Your task to perform on an android device: Open Chrome and go to settings Image 0: 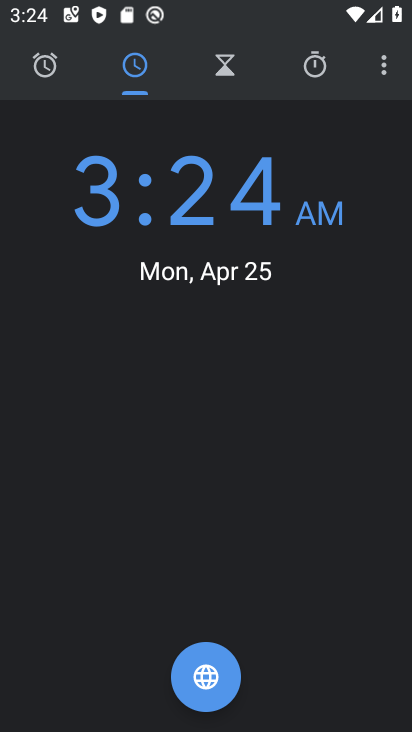
Step 0: press home button
Your task to perform on an android device: Open Chrome and go to settings Image 1: 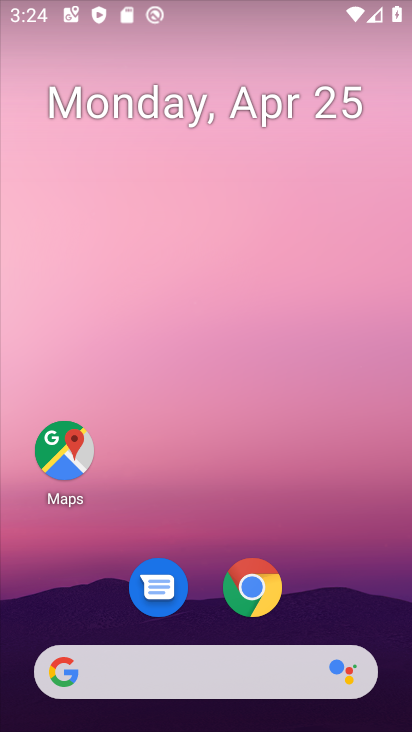
Step 1: click (254, 586)
Your task to perform on an android device: Open Chrome and go to settings Image 2: 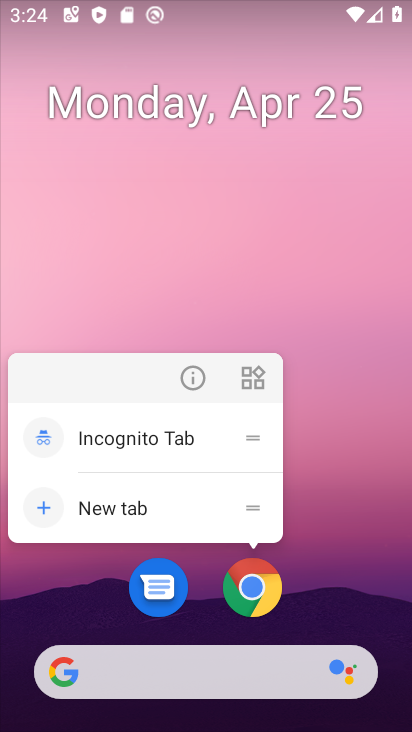
Step 2: click (254, 584)
Your task to perform on an android device: Open Chrome and go to settings Image 3: 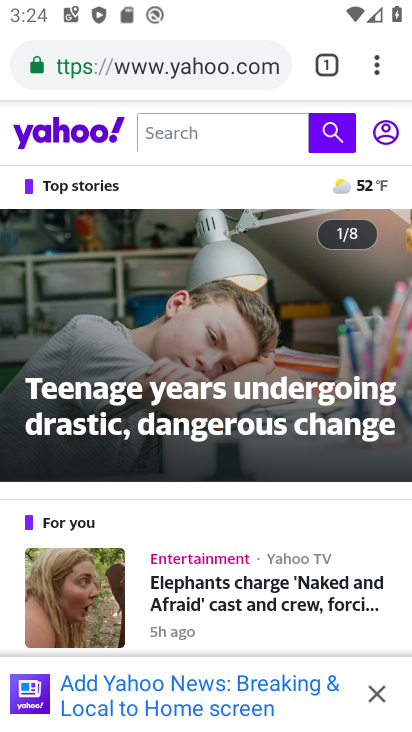
Step 3: click (366, 64)
Your task to perform on an android device: Open Chrome and go to settings Image 4: 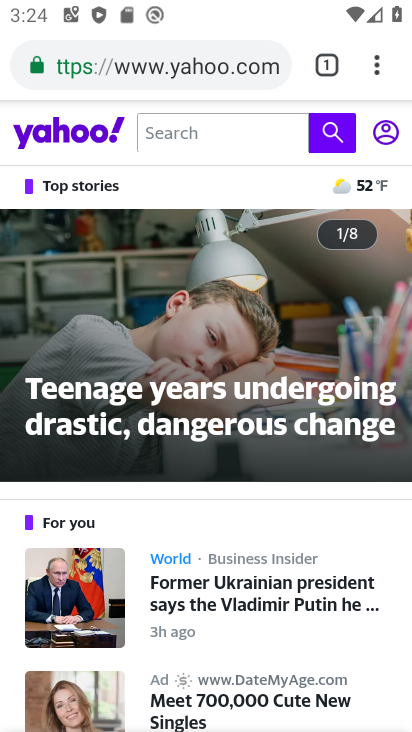
Step 4: click (369, 62)
Your task to perform on an android device: Open Chrome and go to settings Image 5: 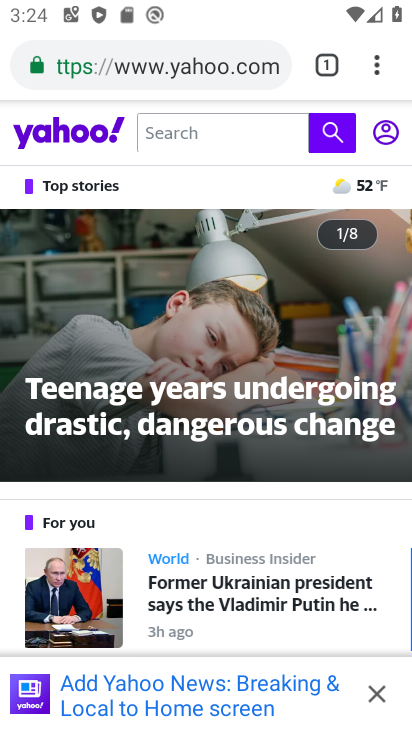
Step 5: click (374, 64)
Your task to perform on an android device: Open Chrome and go to settings Image 6: 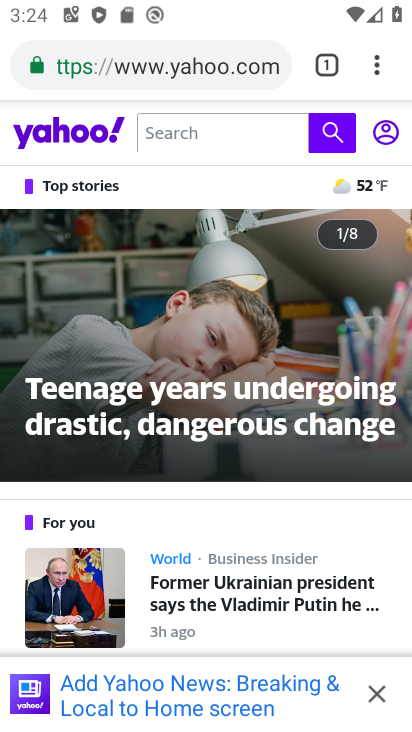
Step 6: click (369, 63)
Your task to perform on an android device: Open Chrome and go to settings Image 7: 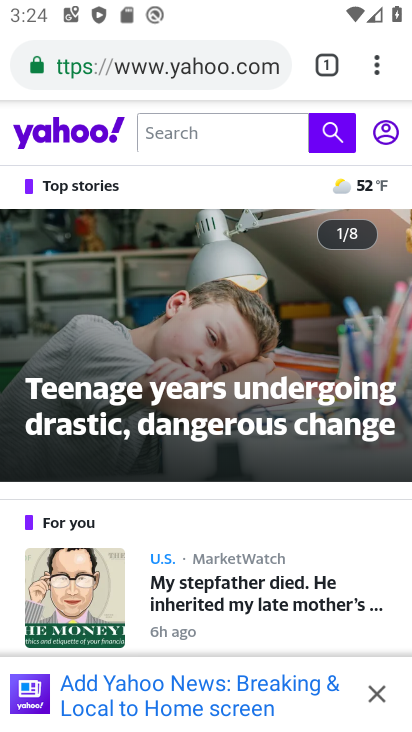
Step 7: click (374, 64)
Your task to perform on an android device: Open Chrome and go to settings Image 8: 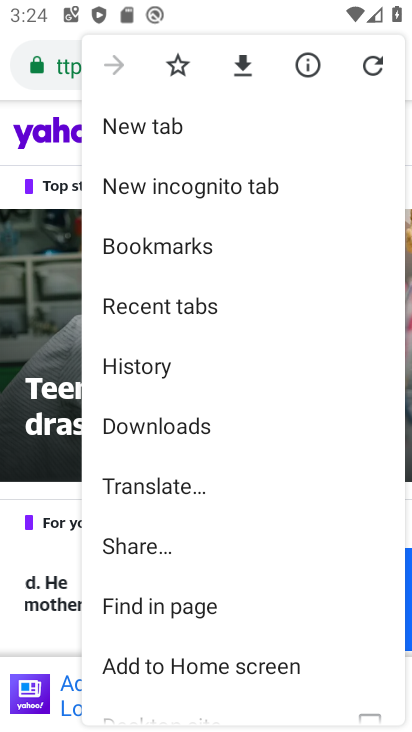
Step 8: drag from (292, 484) to (266, 79)
Your task to perform on an android device: Open Chrome and go to settings Image 9: 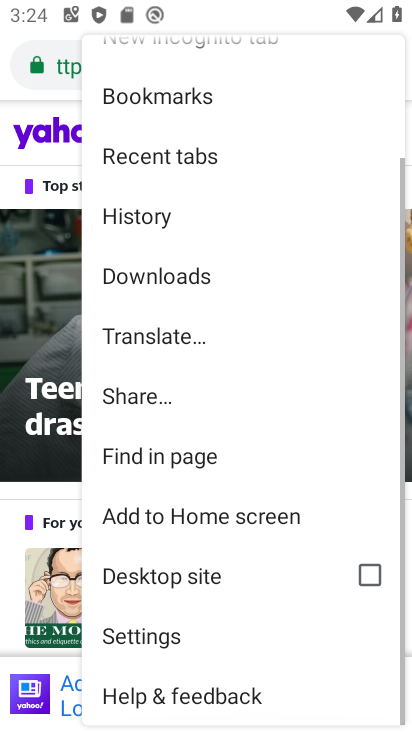
Step 9: click (166, 632)
Your task to perform on an android device: Open Chrome and go to settings Image 10: 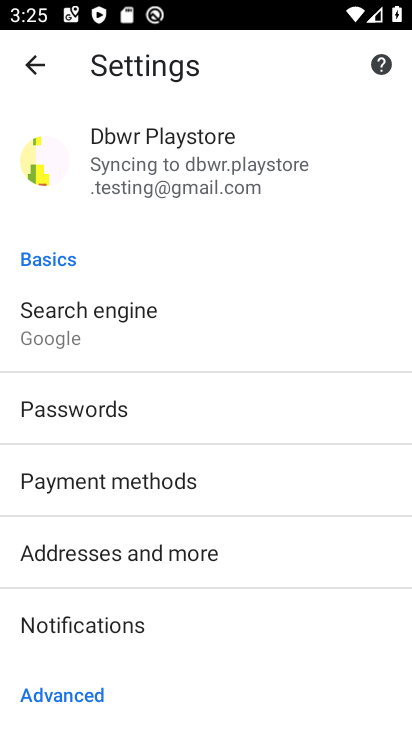
Step 10: task complete